Your task to perform on an android device: open device folders in google photos Image 0: 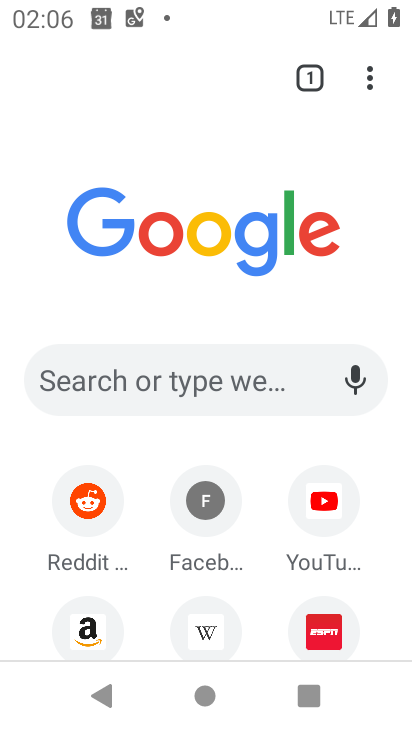
Step 0: press home button
Your task to perform on an android device: open device folders in google photos Image 1: 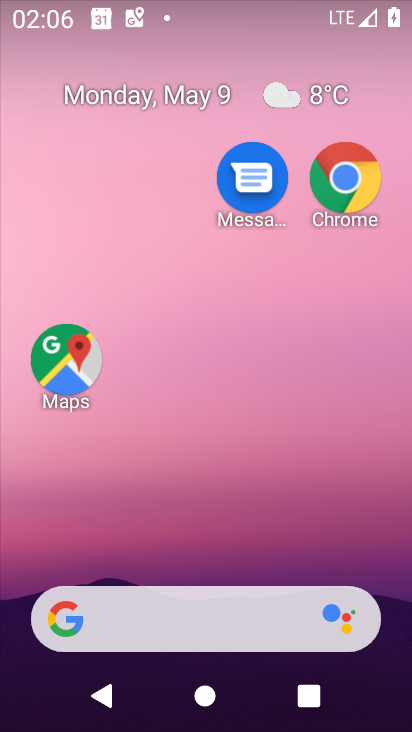
Step 1: drag from (269, 265) to (269, 76)
Your task to perform on an android device: open device folders in google photos Image 2: 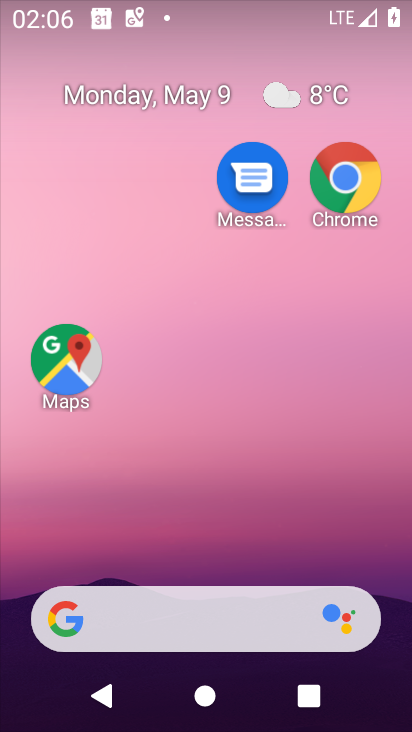
Step 2: drag from (338, 576) to (353, 68)
Your task to perform on an android device: open device folders in google photos Image 3: 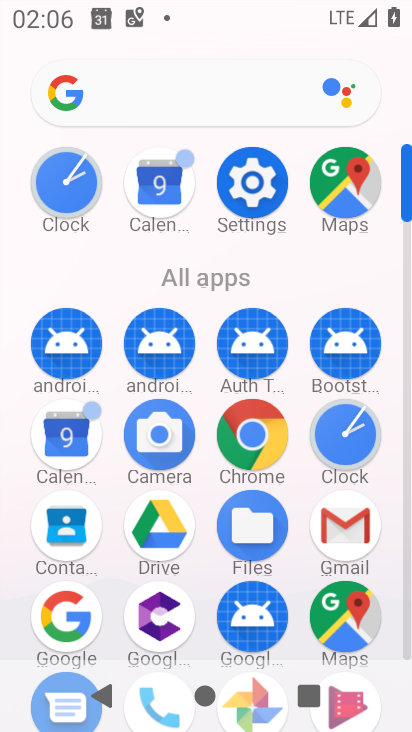
Step 3: drag from (278, 611) to (278, 217)
Your task to perform on an android device: open device folders in google photos Image 4: 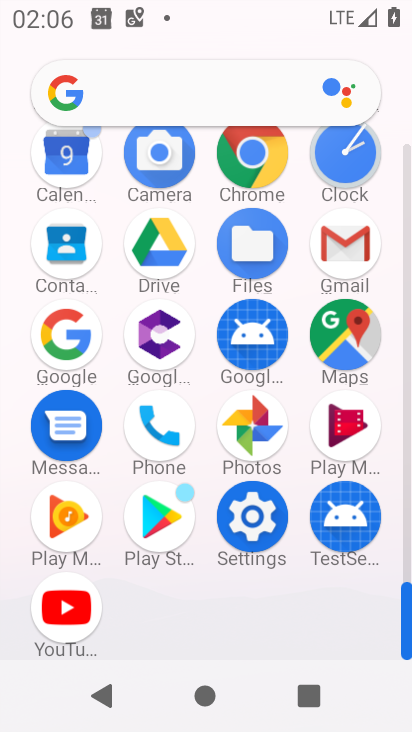
Step 4: click (246, 460)
Your task to perform on an android device: open device folders in google photos Image 5: 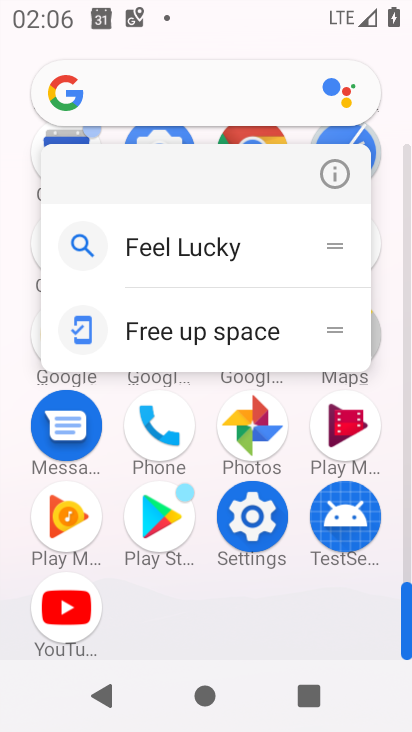
Step 5: click (246, 453)
Your task to perform on an android device: open device folders in google photos Image 6: 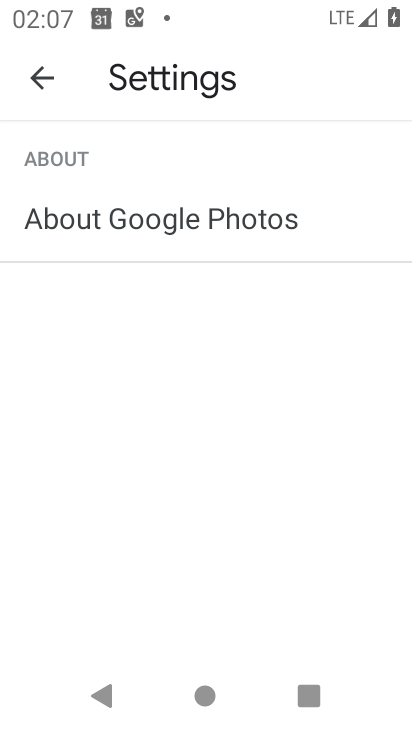
Step 6: click (48, 67)
Your task to perform on an android device: open device folders in google photos Image 7: 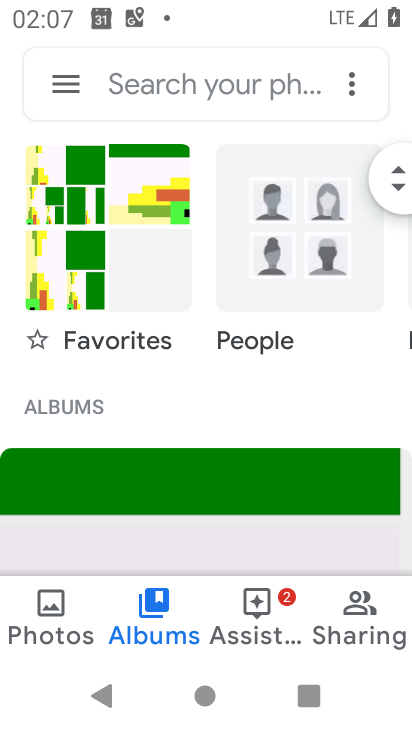
Step 7: click (60, 617)
Your task to perform on an android device: open device folders in google photos Image 8: 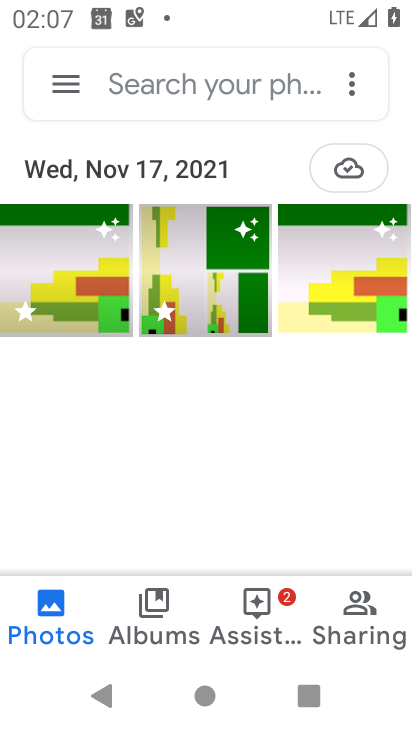
Step 8: click (48, 88)
Your task to perform on an android device: open device folders in google photos Image 9: 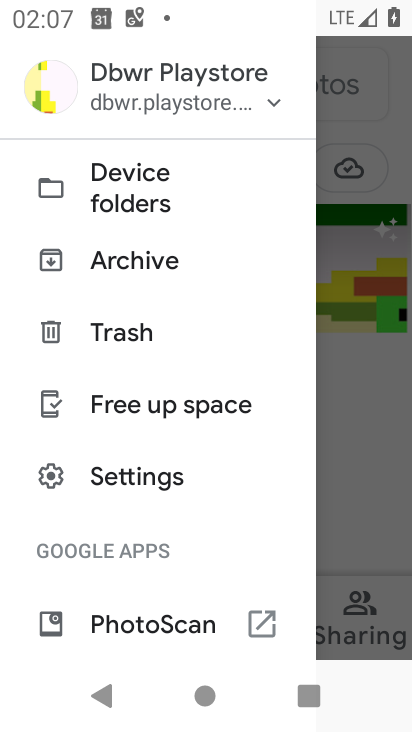
Step 9: click (104, 211)
Your task to perform on an android device: open device folders in google photos Image 10: 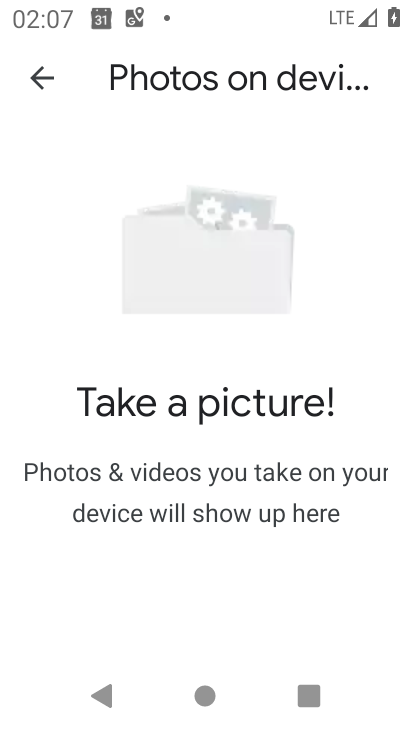
Step 10: task complete